Your task to perform on an android device: find snoozed emails in the gmail app Image 0: 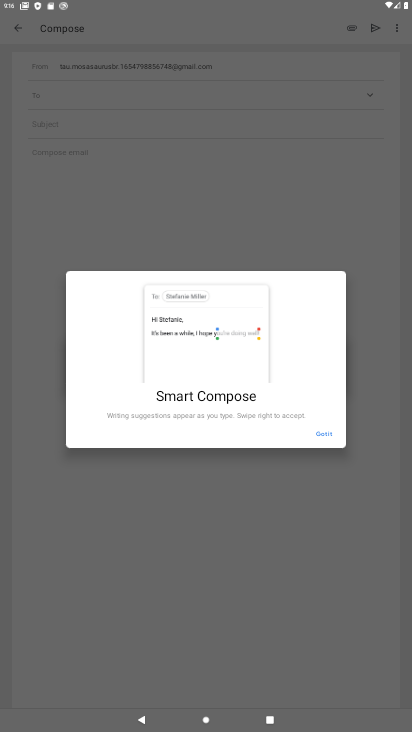
Step 0: press home button
Your task to perform on an android device: find snoozed emails in the gmail app Image 1: 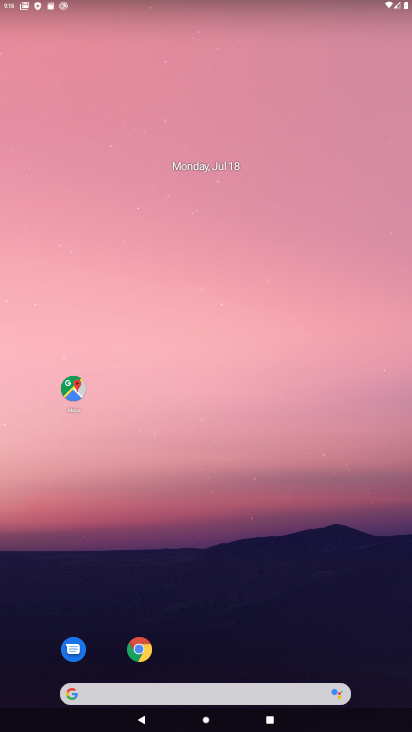
Step 1: drag from (271, 253) to (262, 147)
Your task to perform on an android device: find snoozed emails in the gmail app Image 2: 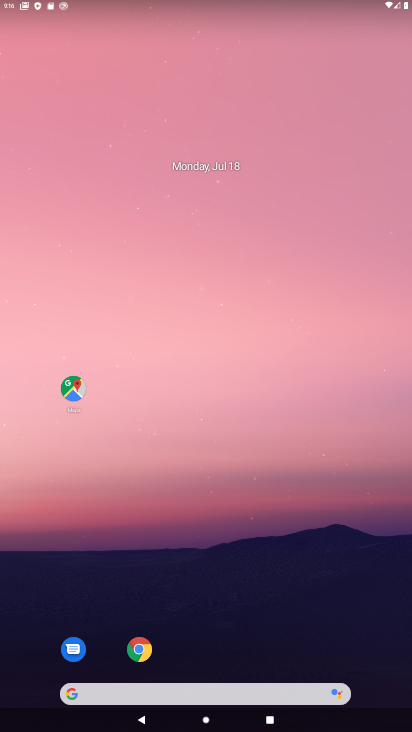
Step 2: drag from (275, 412) to (277, 154)
Your task to perform on an android device: find snoozed emails in the gmail app Image 3: 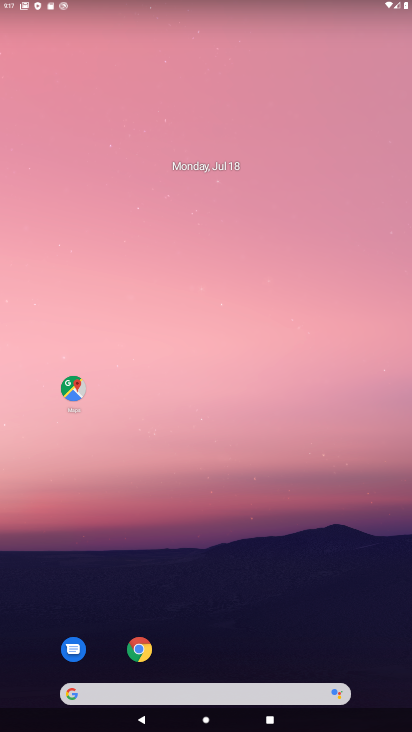
Step 3: drag from (290, 622) to (293, 64)
Your task to perform on an android device: find snoozed emails in the gmail app Image 4: 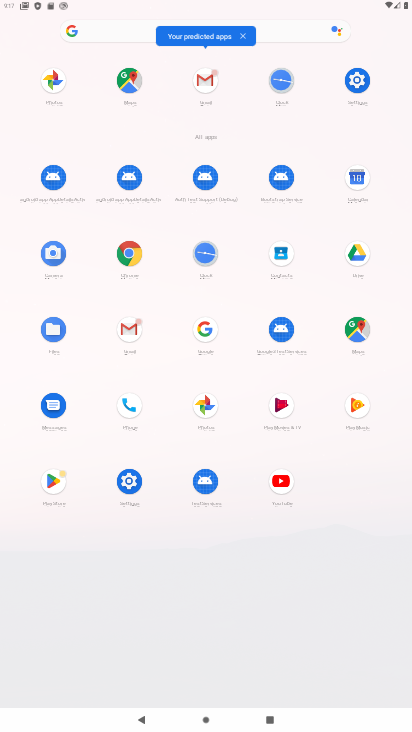
Step 4: click (203, 83)
Your task to perform on an android device: find snoozed emails in the gmail app Image 5: 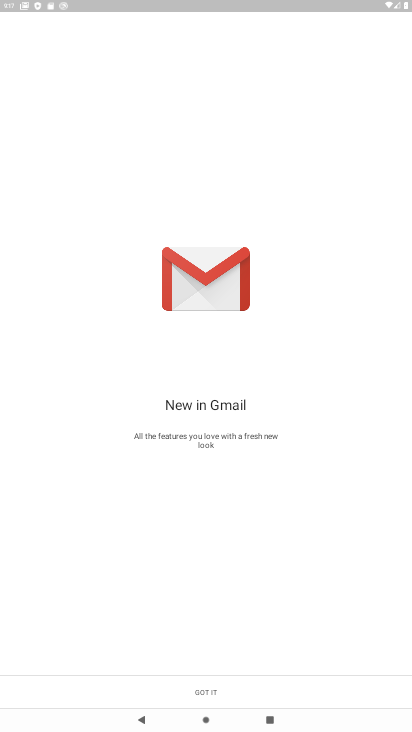
Step 5: click (211, 688)
Your task to perform on an android device: find snoozed emails in the gmail app Image 6: 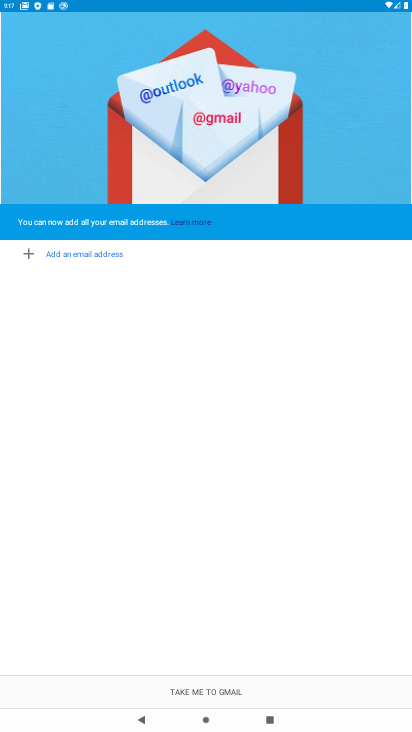
Step 6: click (211, 688)
Your task to perform on an android device: find snoozed emails in the gmail app Image 7: 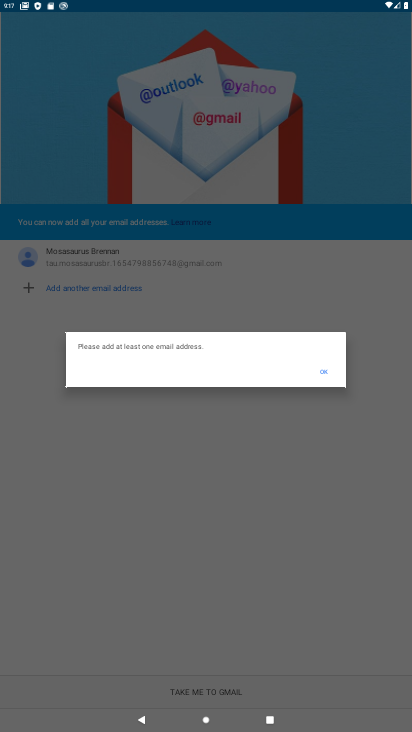
Step 7: click (327, 372)
Your task to perform on an android device: find snoozed emails in the gmail app Image 8: 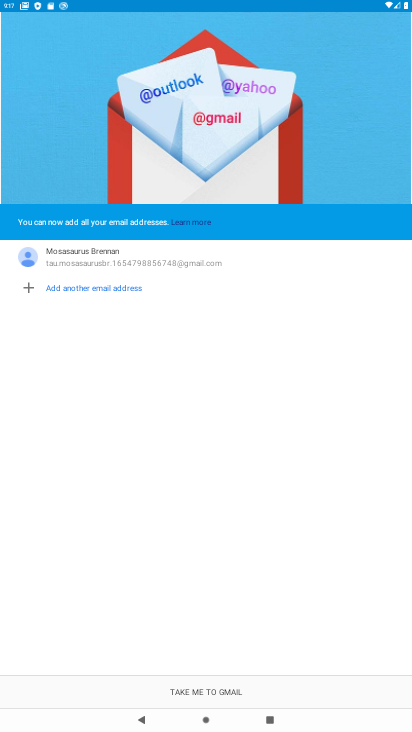
Step 8: click (226, 689)
Your task to perform on an android device: find snoozed emails in the gmail app Image 9: 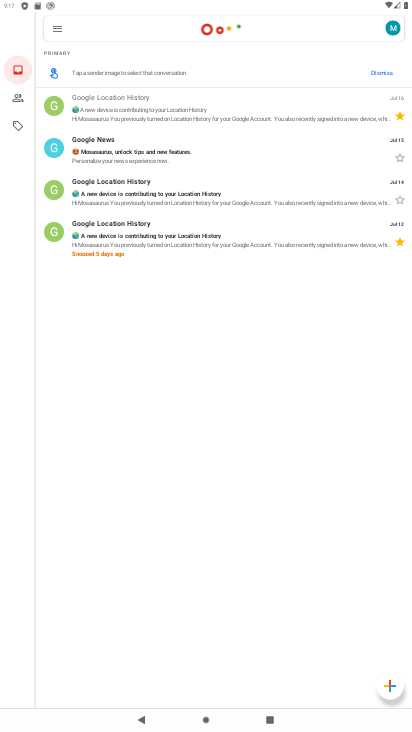
Step 9: click (61, 24)
Your task to perform on an android device: find snoozed emails in the gmail app Image 10: 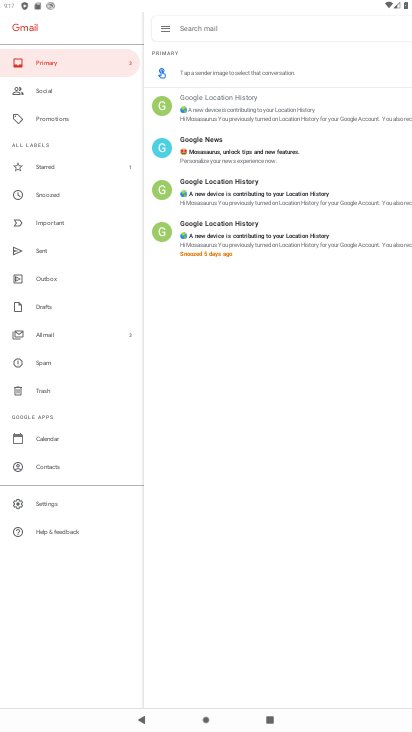
Step 10: click (78, 200)
Your task to perform on an android device: find snoozed emails in the gmail app Image 11: 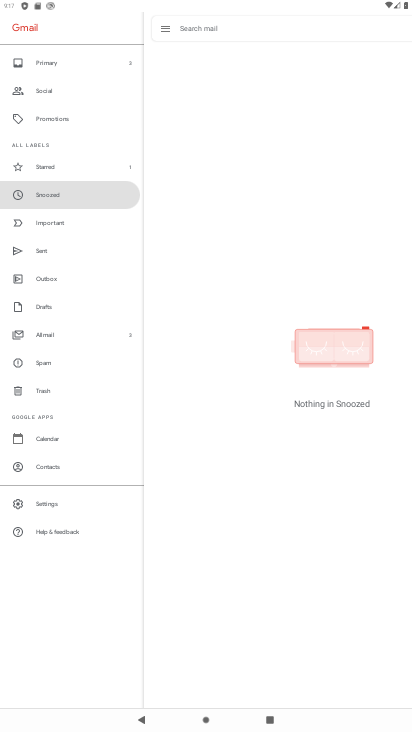
Step 11: task complete